Your task to perform on an android device: turn on data saver in the chrome app Image 0: 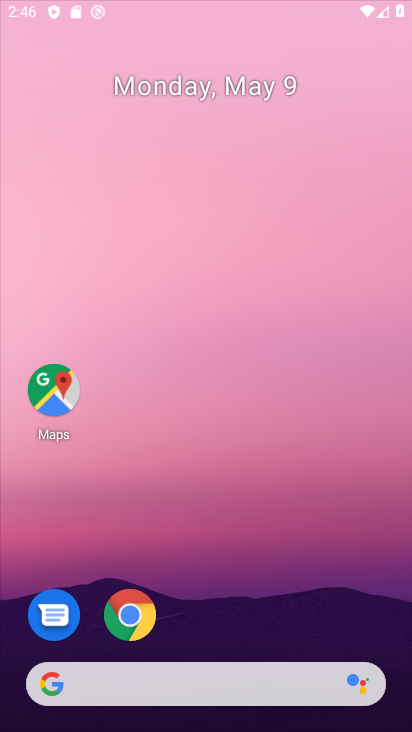
Step 0: drag from (270, 634) to (262, 156)
Your task to perform on an android device: turn on data saver in the chrome app Image 1: 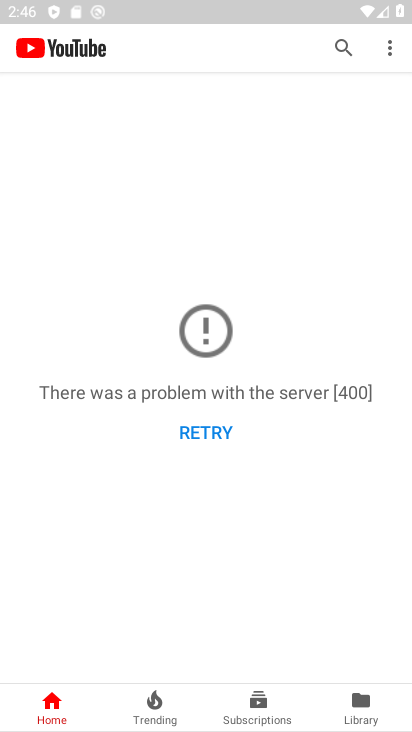
Step 1: press home button
Your task to perform on an android device: turn on data saver in the chrome app Image 2: 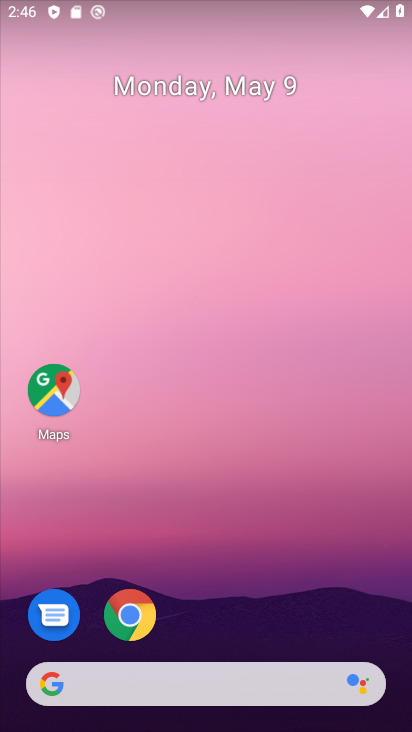
Step 2: drag from (248, 500) to (274, 91)
Your task to perform on an android device: turn on data saver in the chrome app Image 3: 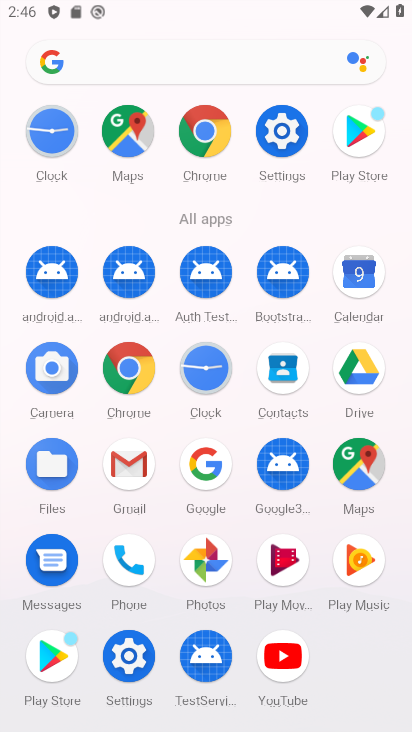
Step 3: click (198, 139)
Your task to perform on an android device: turn on data saver in the chrome app Image 4: 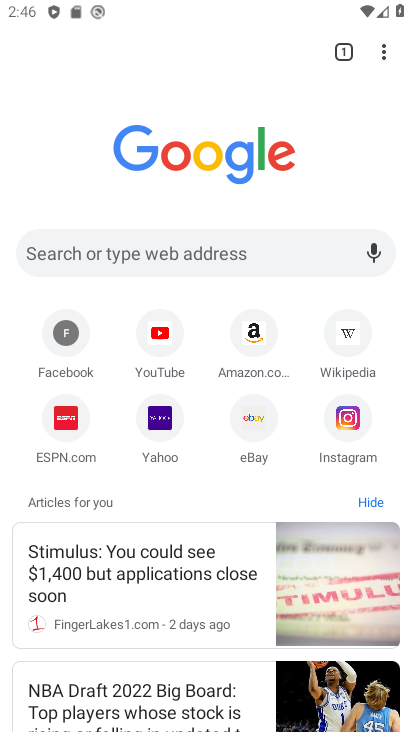
Step 4: click (381, 54)
Your task to perform on an android device: turn on data saver in the chrome app Image 5: 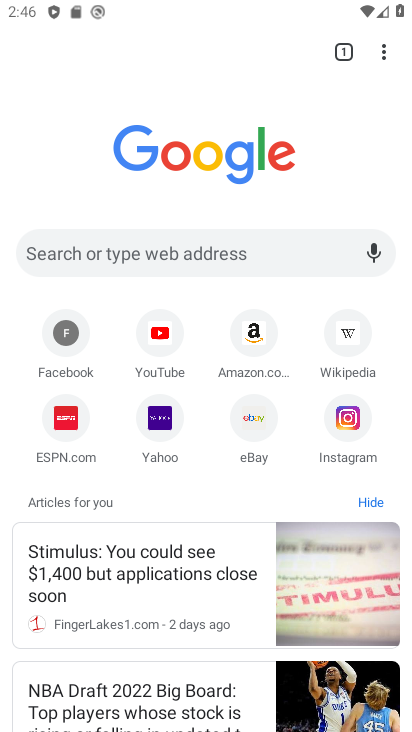
Step 5: click (366, 47)
Your task to perform on an android device: turn on data saver in the chrome app Image 6: 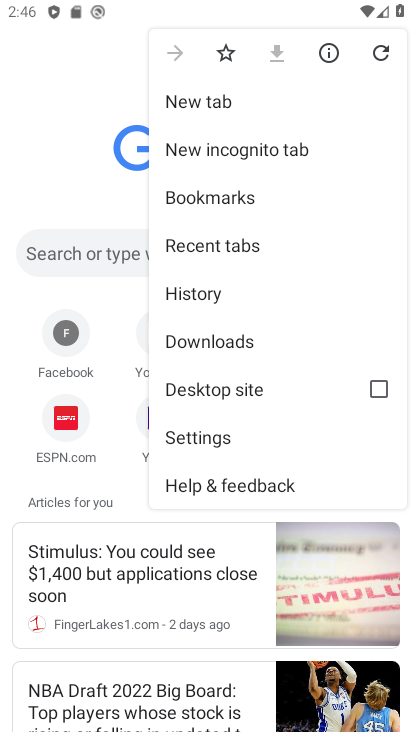
Step 6: click (185, 436)
Your task to perform on an android device: turn on data saver in the chrome app Image 7: 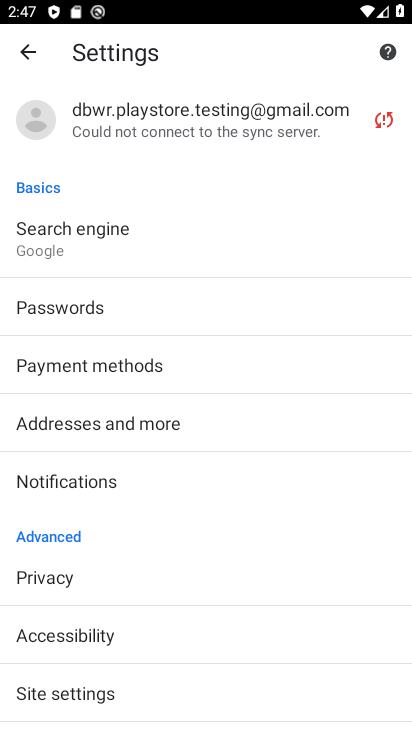
Step 7: drag from (129, 575) to (180, 248)
Your task to perform on an android device: turn on data saver in the chrome app Image 8: 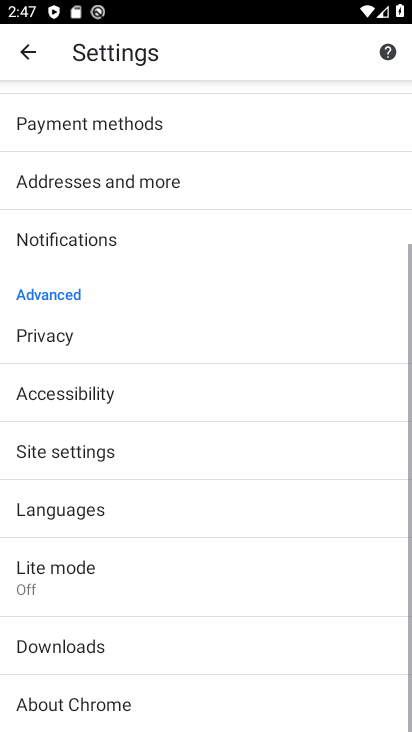
Step 8: click (101, 594)
Your task to perform on an android device: turn on data saver in the chrome app Image 9: 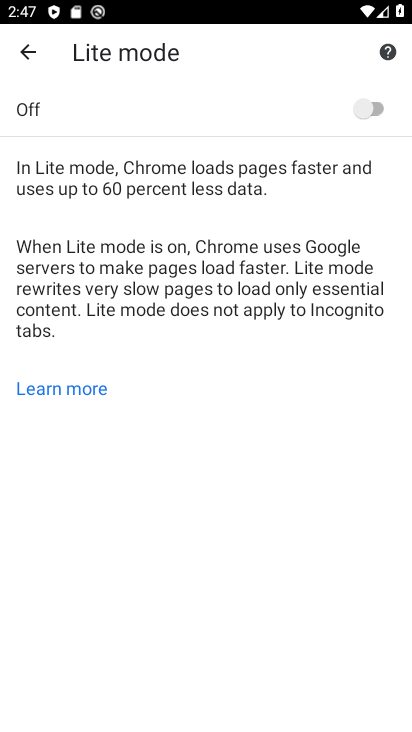
Step 9: click (360, 103)
Your task to perform on an android device: turn on data saver in the chrome app Image 10: 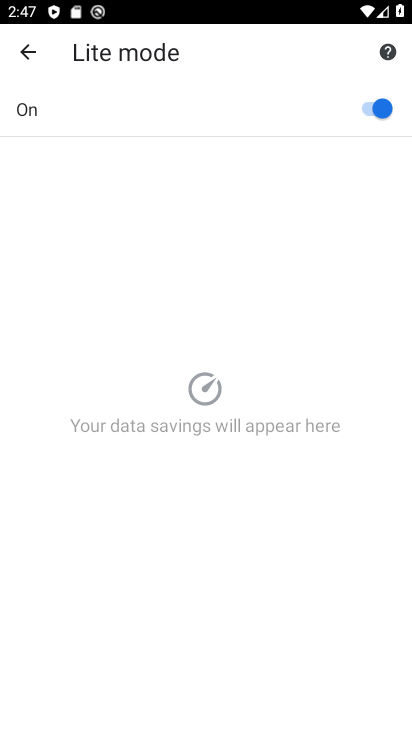
Step 10: task complete